Your task to perform on an android device: What's the weather? Image 0: 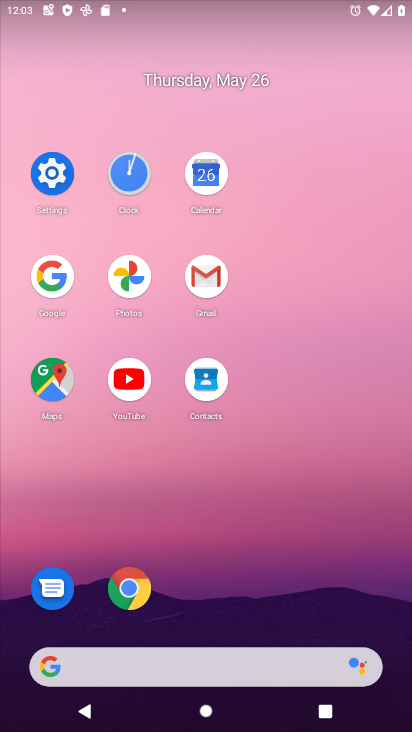
Step 0: click (60, 288)
Your task to perform on an android device: What's the weather? Image 1: 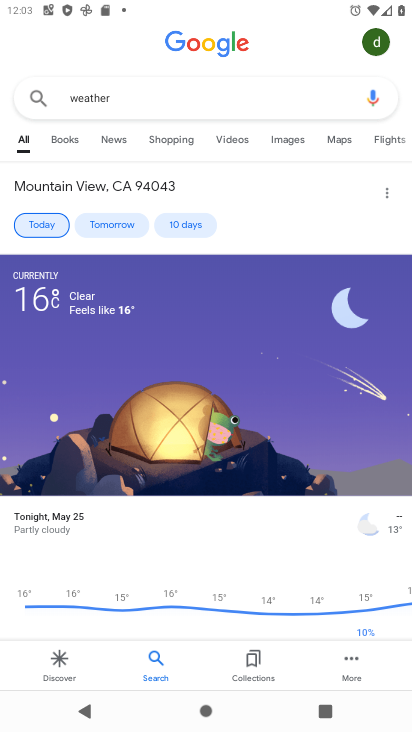
Step 1: task complete